Your task to perform on an android device: Open Yahoo.com Image 0: 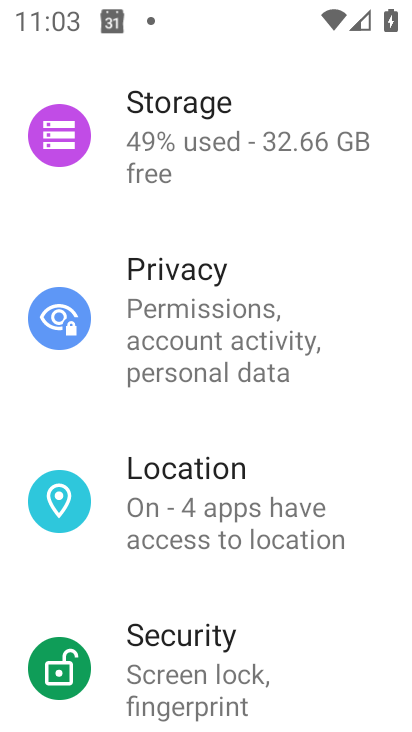
Step 0: press home button
Your task to perform on an android device: Open Yahoo.com Image 1: 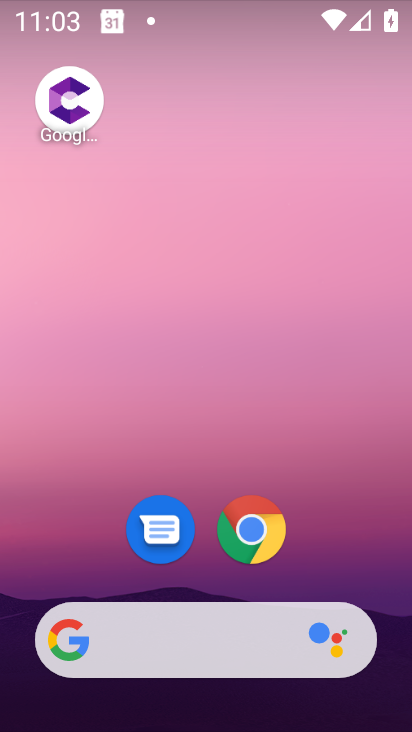
Step 1: click (264, 548)
Your task to perform on an android device: Open Yahoo.com Image 2: 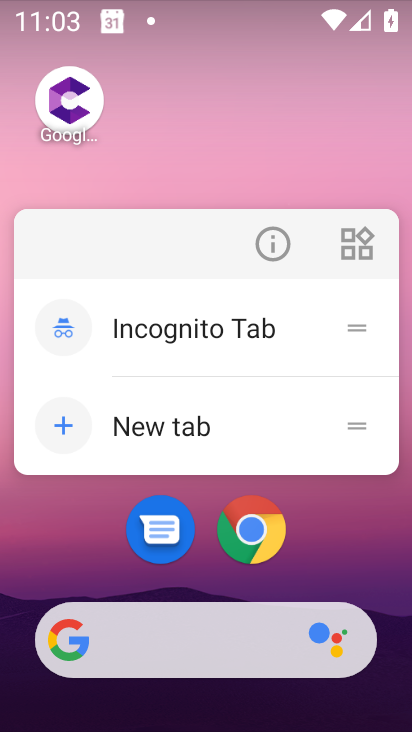
Step 2: click (260, 539)
Your task to perform on an android device: Open Yahoo.com Image 3: 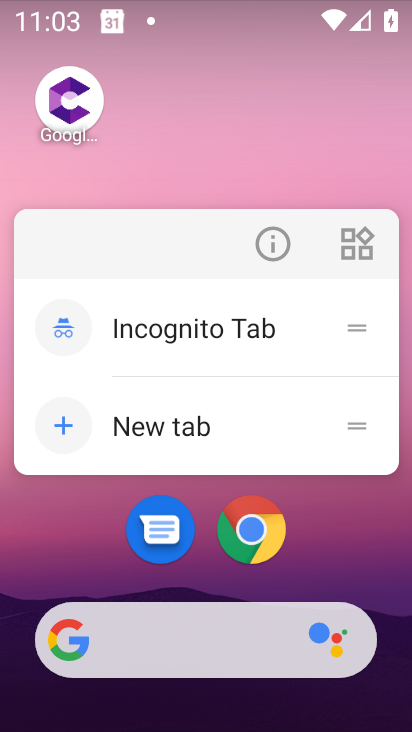
Step 3: click (260, 530)
Your task to perform on an android device: Open Yahoo.com Image 4: 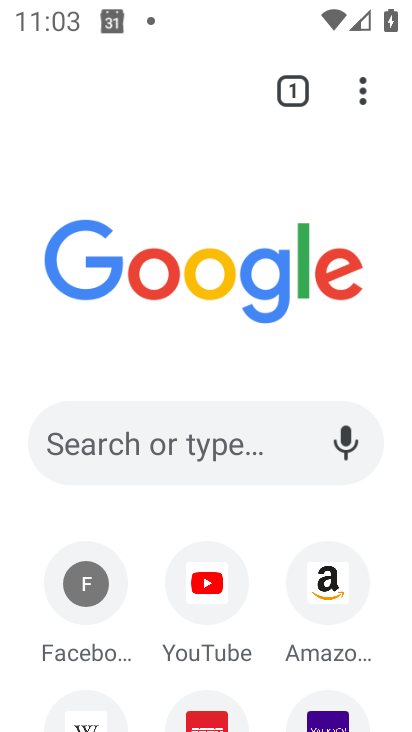
Step 4: drag from (238, 645) to (328, 359)
Your task to perform on an android device: Open Yahoo.com Image 5: 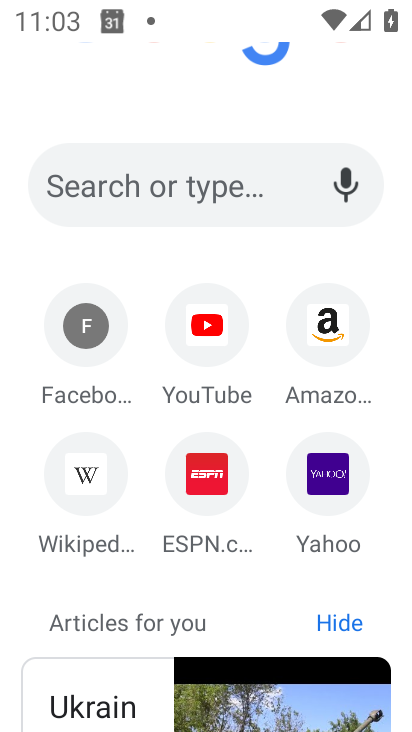
Step 5: click (345, 517)
Your task to perform on an android device: Open Yahoo.com Image 6: 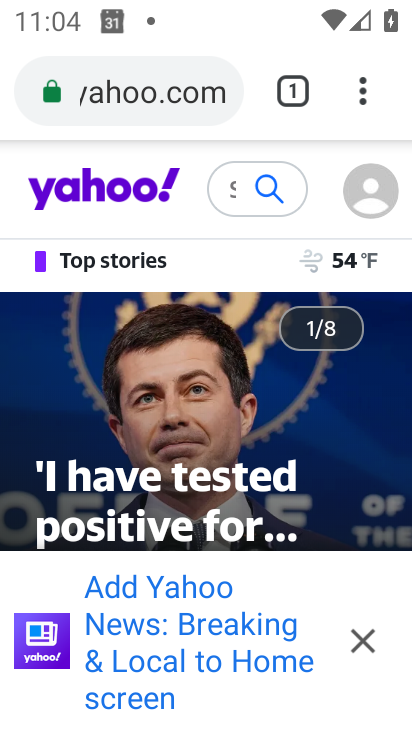
Step 6: task complete